Your task to perform on an android device: turn off wifi Image 0: 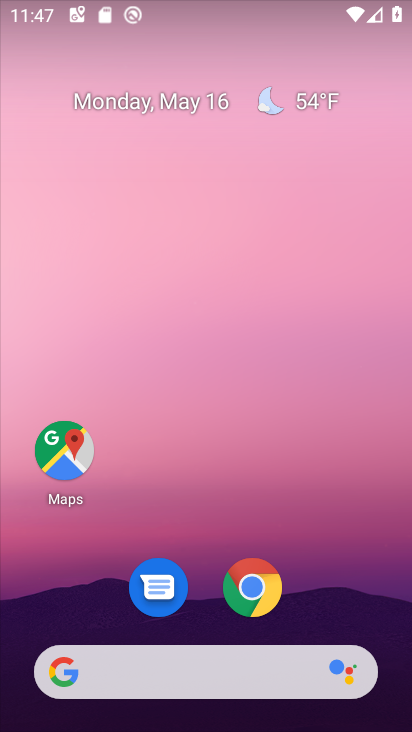
Step 0: drag from (274, 175) to (308, 21)
Your task to perform on an android device: turn off wifi Image 1: 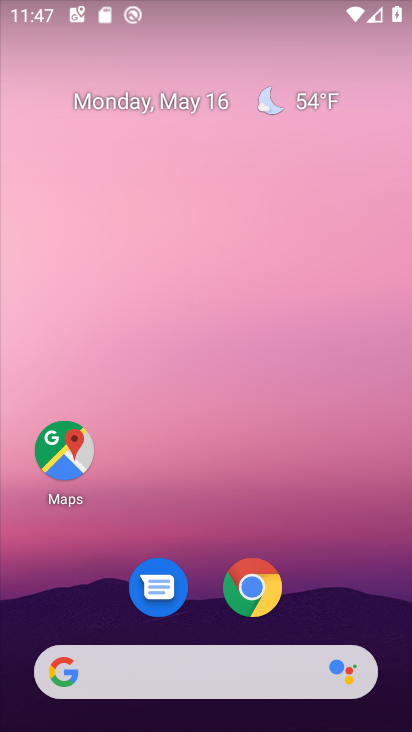
Step 1: drag from (221, 605) to (317, 8)
Your task to perform on an android device: turn off wifi Image 2: 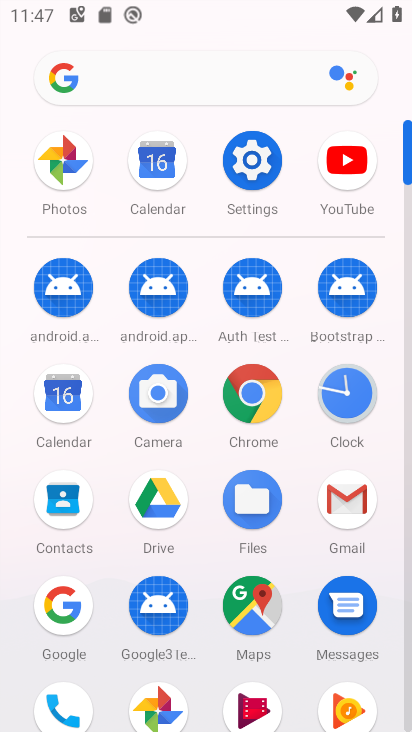
Step 2: click (257, 185)
Your task to perform on an android device: turn off wifi Image 3: 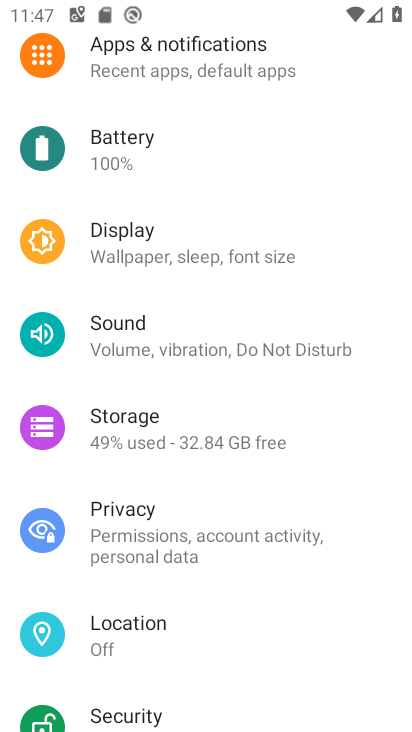
Step 3: drag from (241, 162) to (235, 471)
Your task to perform on an android device: turn off wifi Image 4: 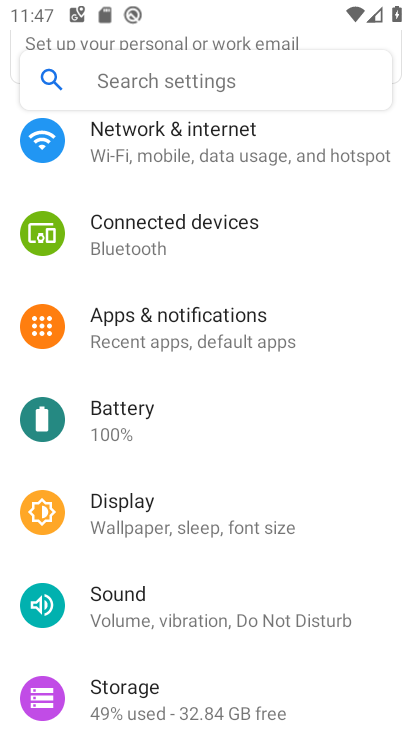
Step 4: drag from (180, 219) to (211, 470)
Your task to perform on an android device: turn off wifi Image 5: 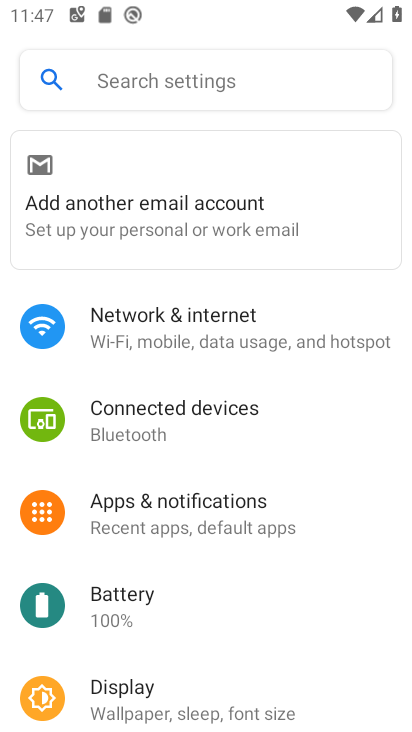
Step 5: click (169, 315)
Your task to perform on an android device: turn off wifi Image 6: 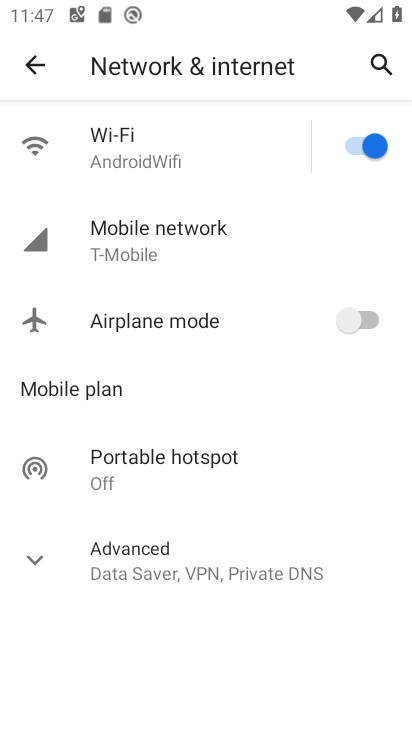
Step 6: click (339, 134)
Your task to perform on an android device: turn off wifi Image 7: 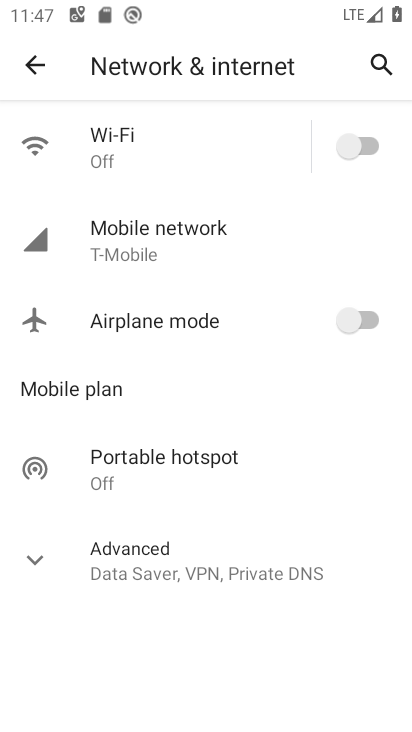
Step 7: task complete